Your task to perform on an android device: Search for seafood restaurants on Google Maps Image 0: 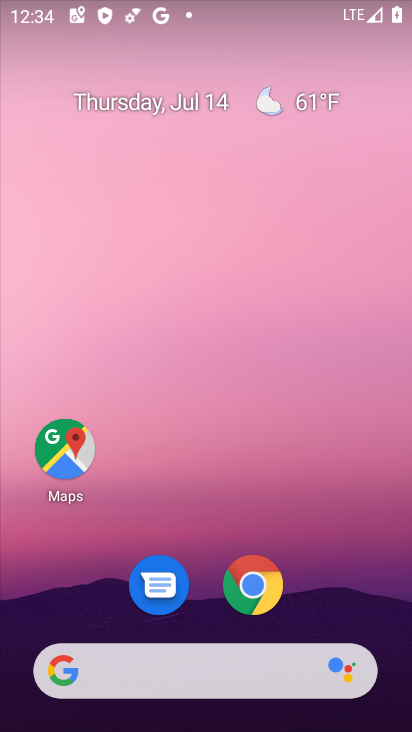
Step 0: click (73, 438)
Your task to perform on an android device: Search for seafood restaurants on Google Maps Image 1: 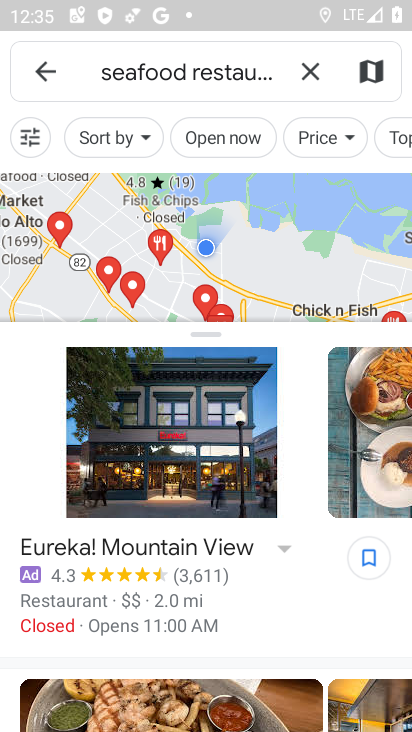
Step 1: task complete